Your task to perform on an android device: change the clock display to show seconds Image 0: 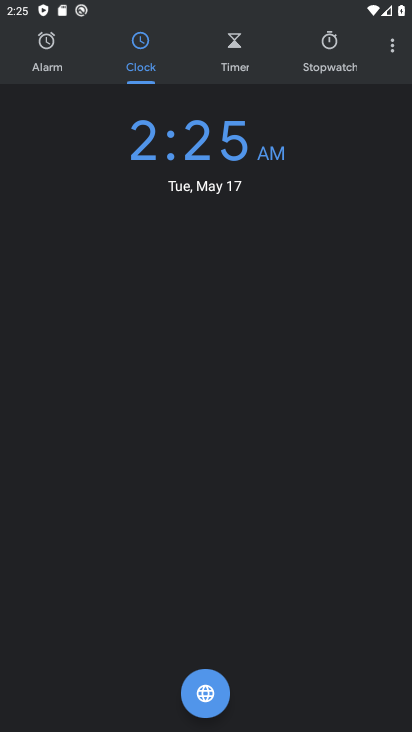
Step 0: click (396, 43)
Your task to perform on an android device: change the clock display to show seconds Image 1: 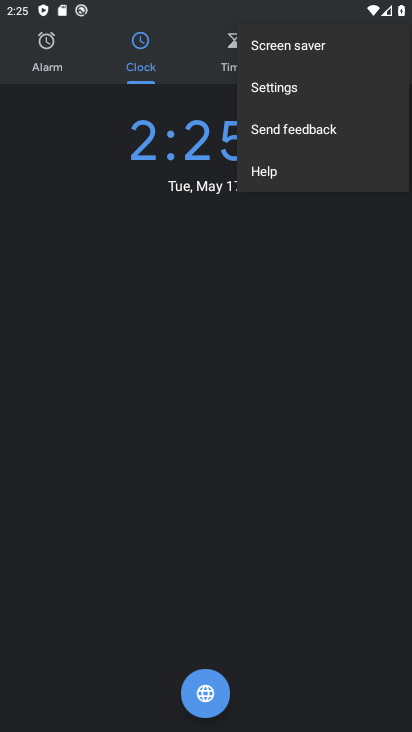
Step 1: click (273, 90)
Your task to perform on an android device: change the clock display to show seconds Image 2: 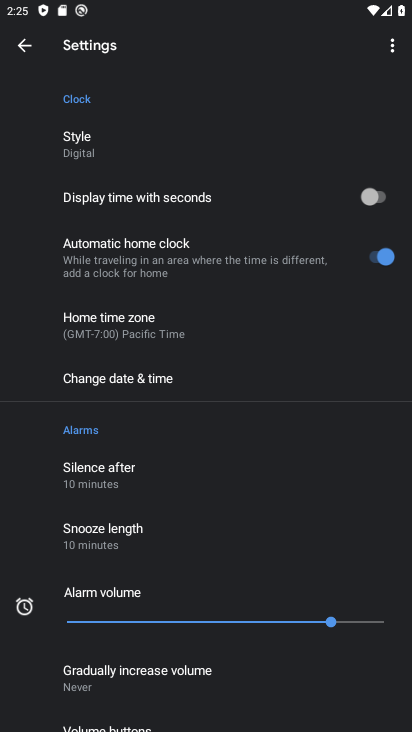
Step 2: click (371, 192)
Your task to perform on an android device: change the clock display to show seconds Image 3: 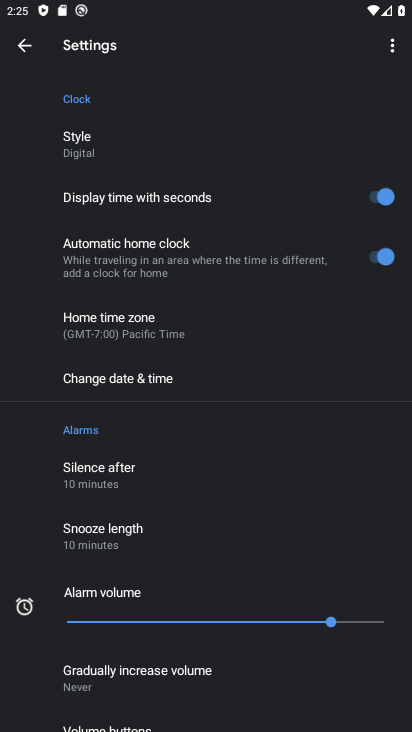
Step 3: task complete